Your task to perform on an android device: Go to Maps Image 0: 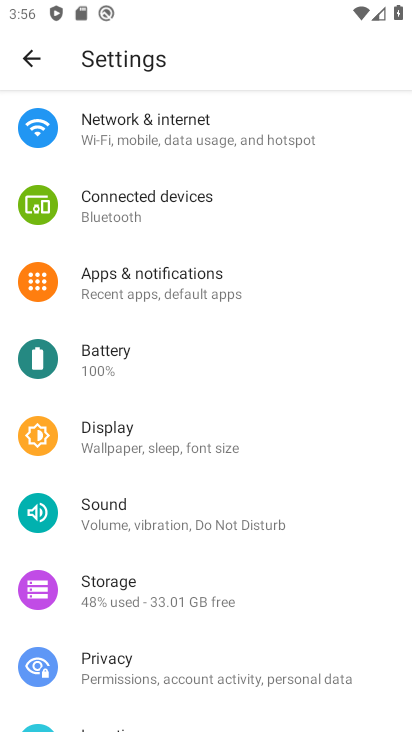
Step 0: press home button
Your task to perform on an android device: Go to Maps Image 1: 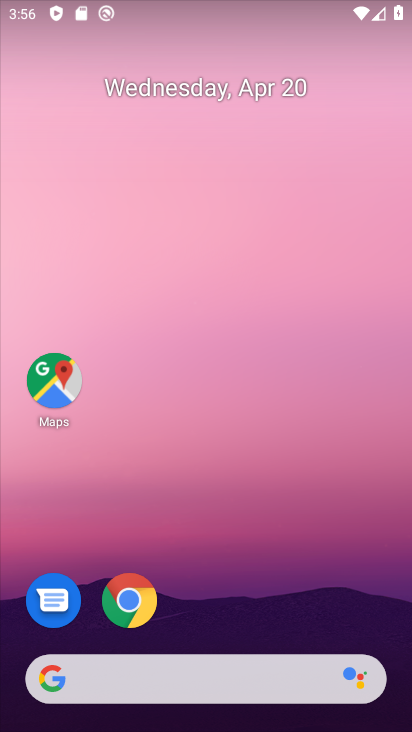
Step 1: click (50, 376)
Your task to perform on an android device: Go to Maps Image 2: 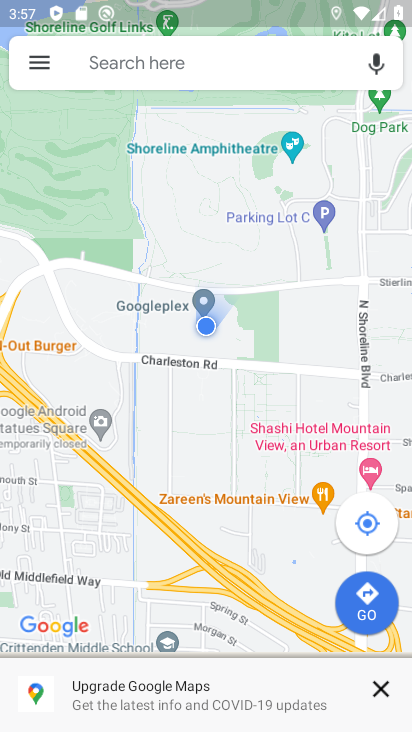
Step 2: click (42, 60)
Your task to perform on an android device: Go to Maps Image 3: 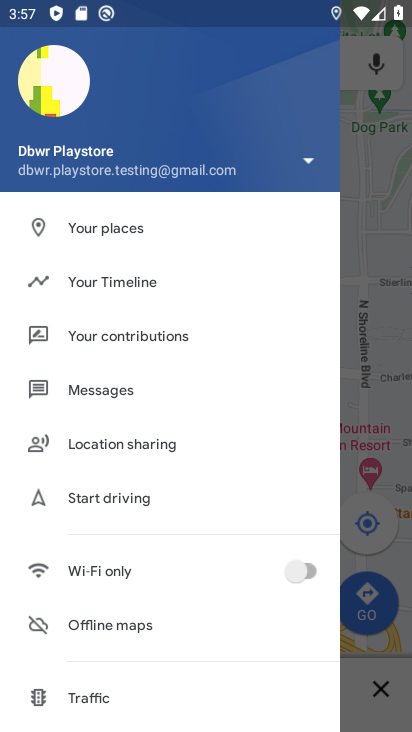
Step 3: click (260, 181)
Your task to perform on an android device: Go to Maps Image 4: 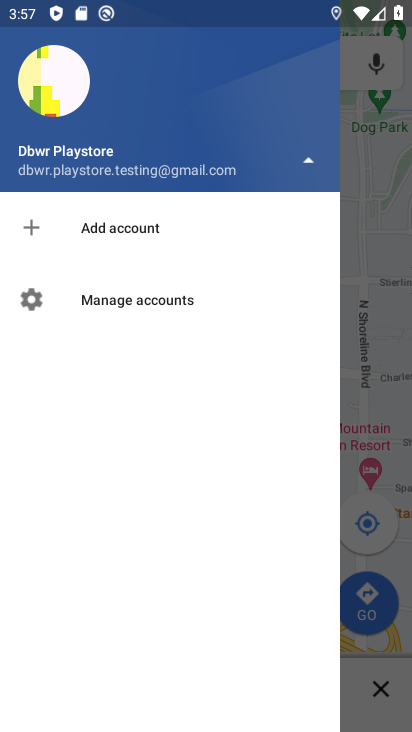
Step 4: task complete